Your task to perform on an android device: Open calendar and show me the fourth week of next month Image 0: 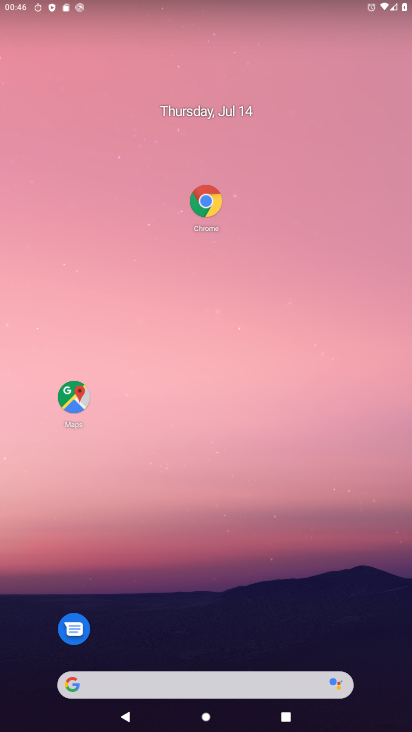
Step 0: drag from (213, 656) to (209, 42)
Your task to perform on an android device: Open calendar and show me the fourth week of next month Image 1: 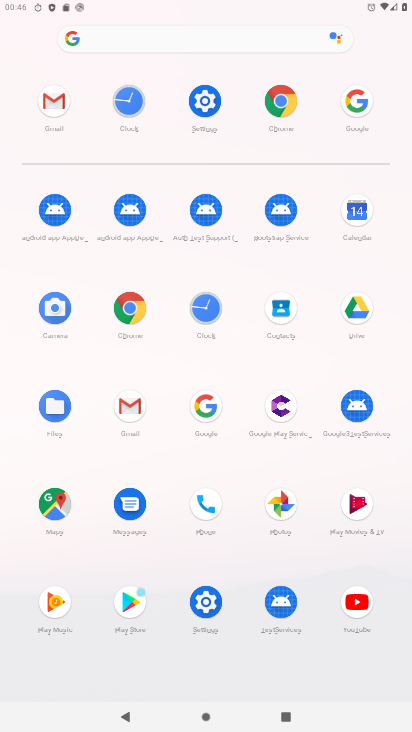
Step 1: click (360, 208)
Your task to perform on an android device: Open calendar and show me the fourth week of next month Image 2: 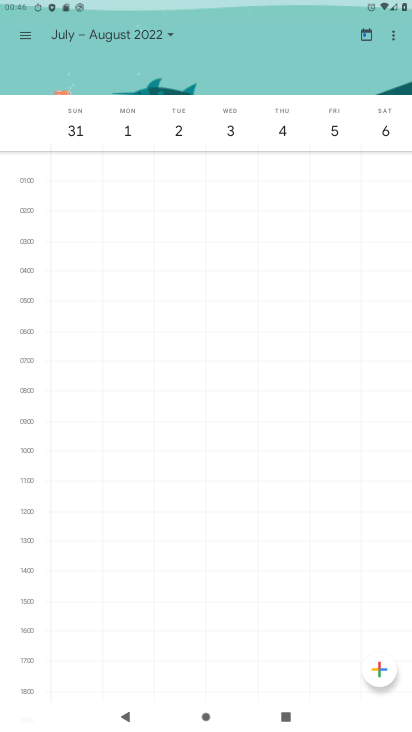
Step 2: task complete